Your task to perform on an android device: Open Reddit.com Image 0: 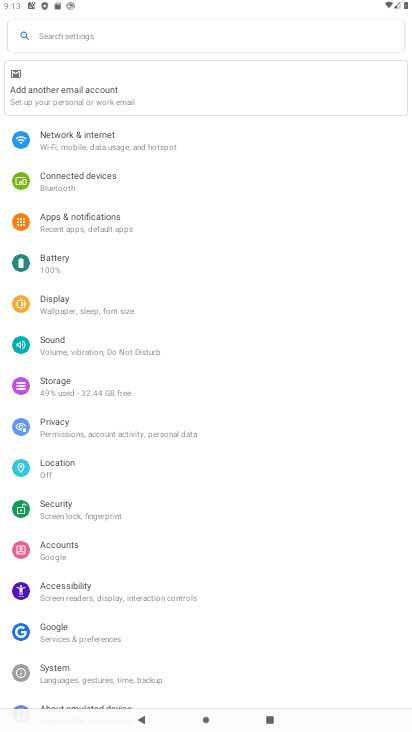
Step 0: press home button
Your task to perform on an android device: Open Reddit.com Image 1: 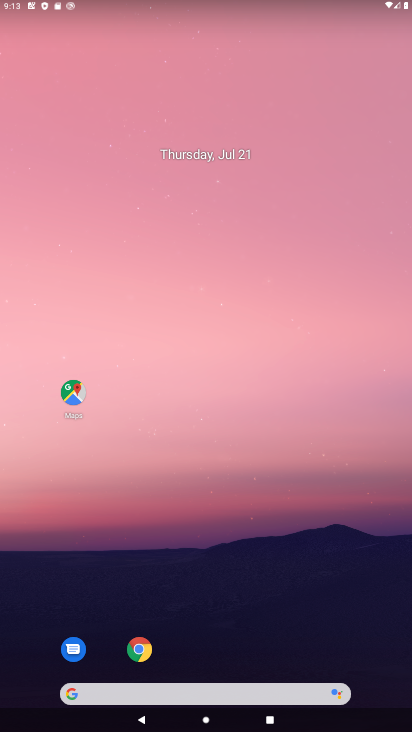
Step 1: drag from (237, 573) to (204, 66)
Your task to perform on an android device: Open Reddit.com Image 2: 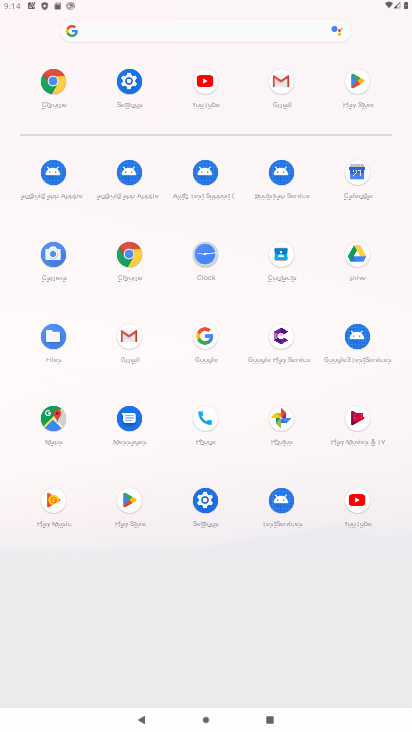
Step 2: click (117, 246)
Your task to perform on an android device: Open Reddit.com Image 3: 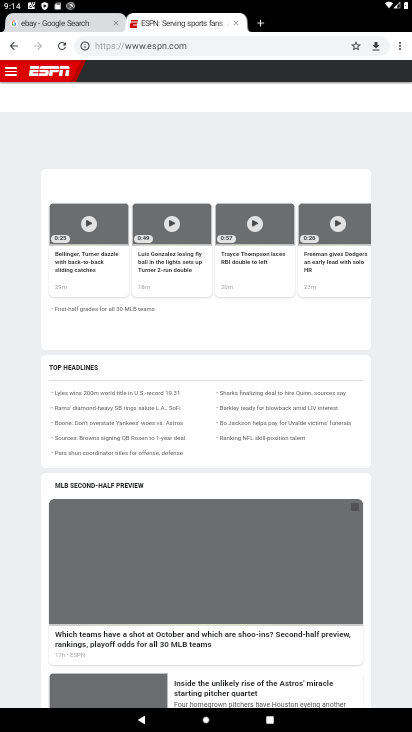
Step 3: click (167, 46)
Your task to perform on an android device: Open Reddit.com Image 4: 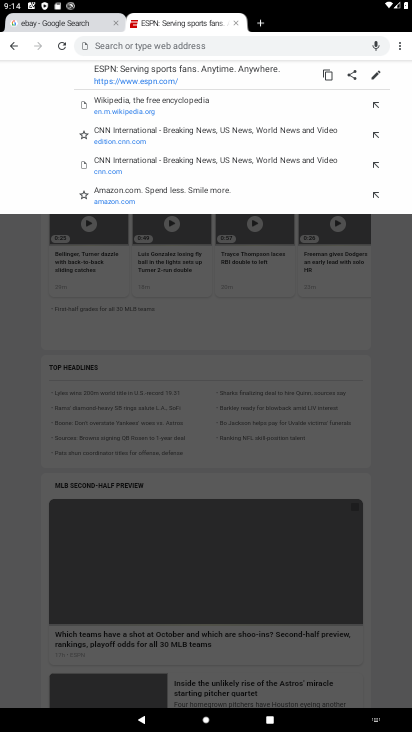
Step 4: type "reddit.com"
Your task to perform on an android device: Open Reddit.com Image 5: 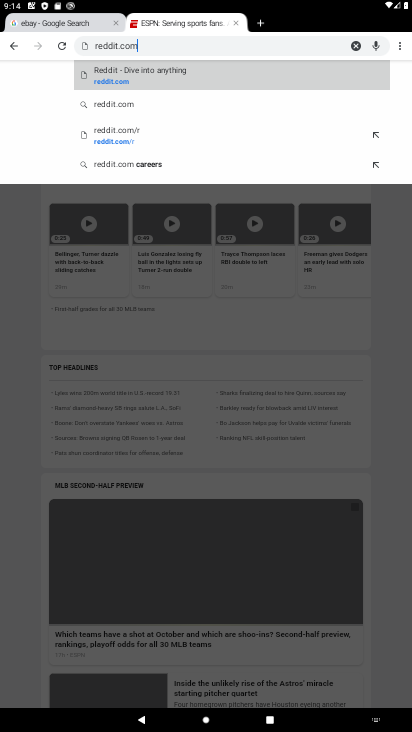
Step 5: click (222, 71)
Your task to perform on an android device: Open Reddit.com Image 6: 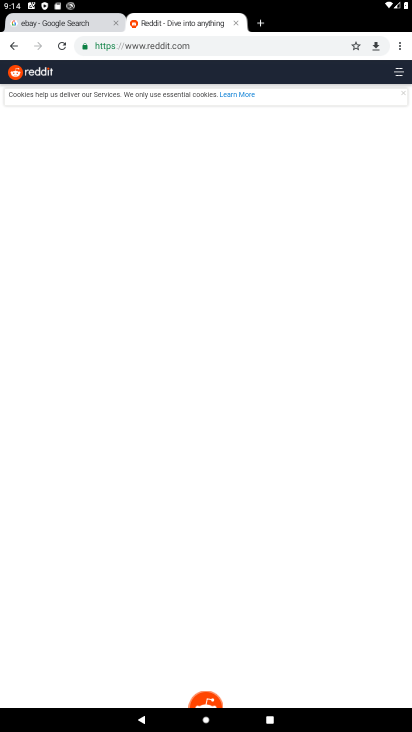
Step 6: task complete